Your task to perform on an android device: Check the weather Image 0: 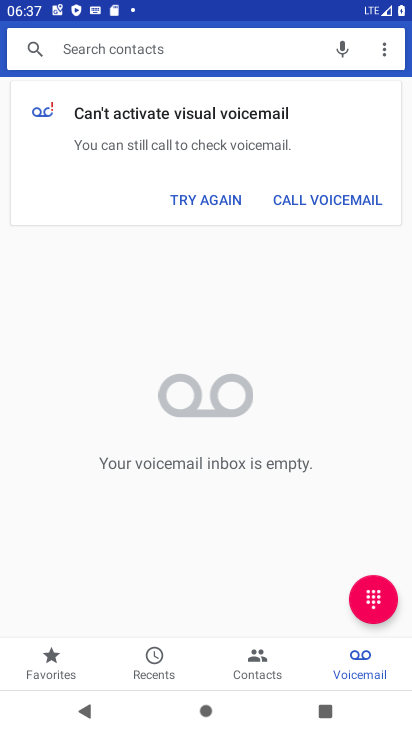
Step 0: press home button
Your task to perform on an android device: Check the weather Image 1: 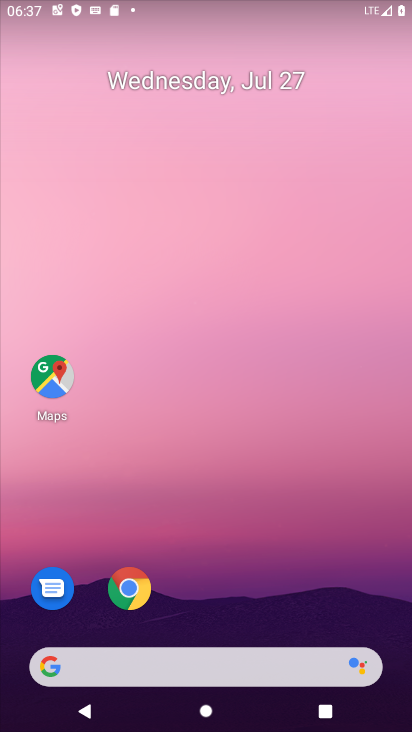
Step 1: drag from (162, 630) to (335, 34)
Your task to perform on an android device: Check the weather Image 2: 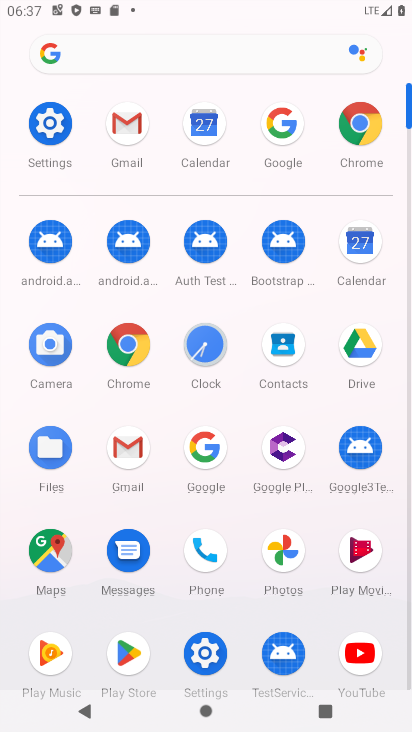
Step 2: click (138, 324)
Your task to perform on an android device: Check the weather Image 3: 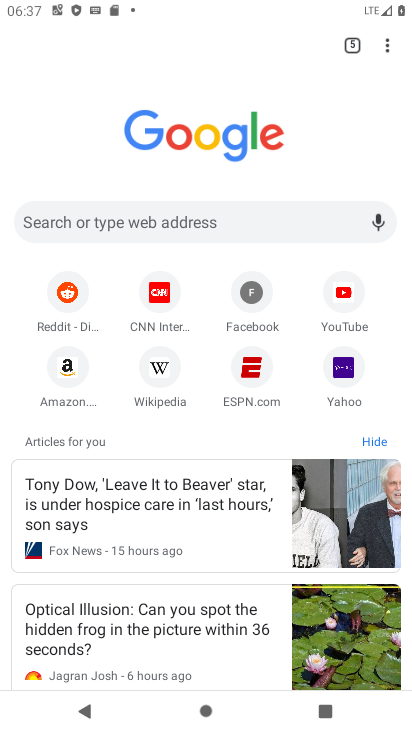
Step 3: click (125, 211)
Your task to perform on an android device: Check the weather Image 4: 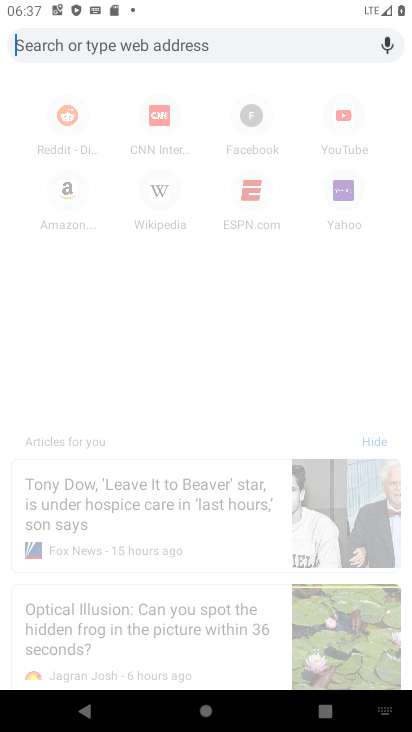
Step 4: click (199, 47)
Your task to perform on an android device: Check the weather Image 5: 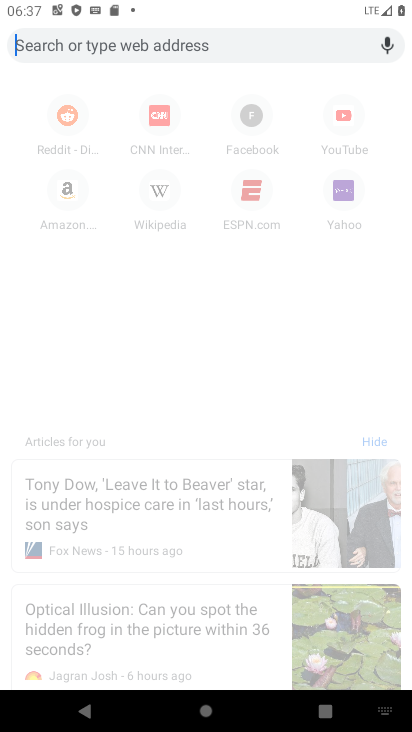
Step 5: type "check the weather"
Your task to perform on an android device: Check the weather Image 6: 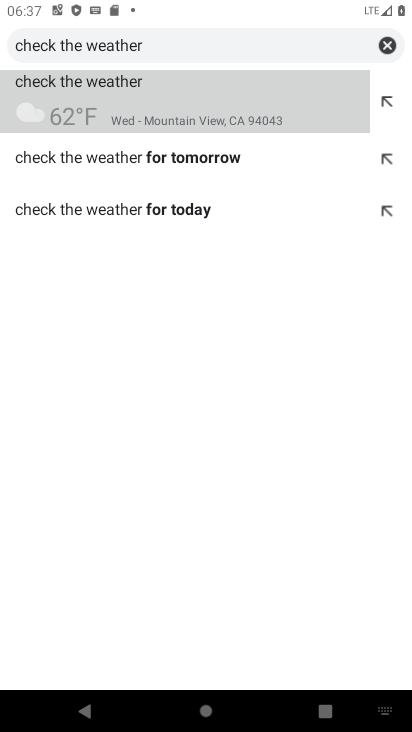
Step 6: click (251, 87)
Your task to perform on an android device: Check the weather Image 7: 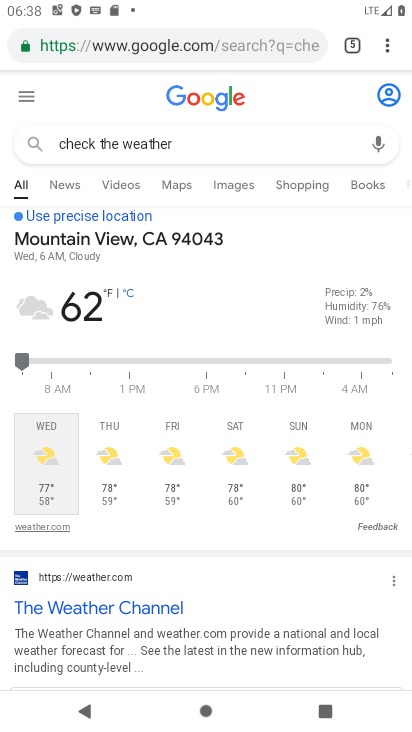
Step 7: task complete